Your task to perform on an android device: Open the phone app and click the voicemail tab. Image 0: 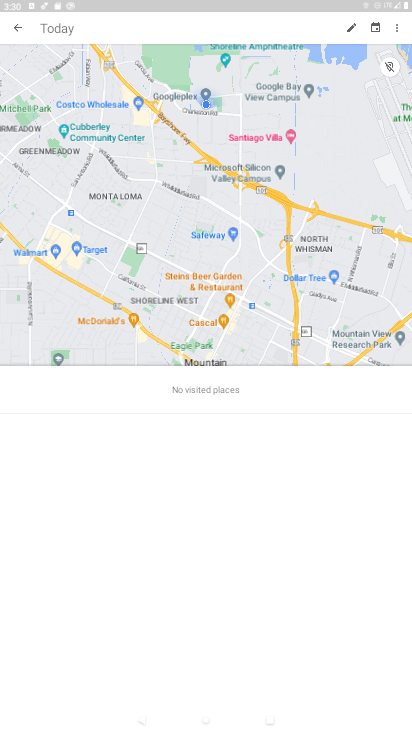
Step 0: press home button
Your task to perform on an android device: Open the phone app and click the voicemail tab. Image 1: 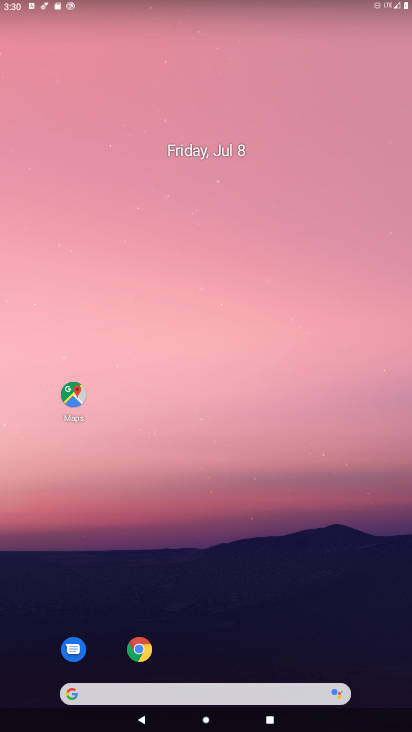
Step 1: drag from (365, 644) to (336, 167)
Your task to perform on an android device: Open the phone app and click the voicemail tab. Image 2: 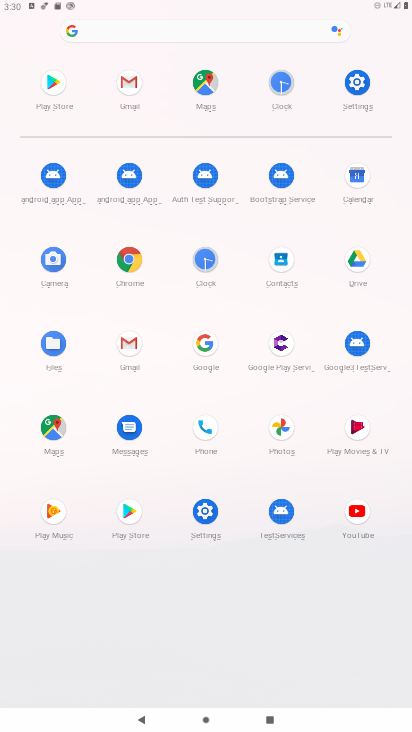
Step 2: click (201, 428)
Your task to perform on an android device: Open the phone app and click the voicemail tab. Image 3: 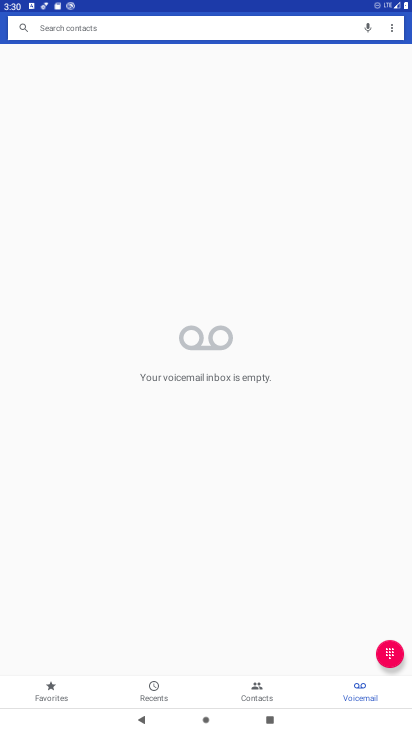
Step 3: click (350, 686)
Your task to perform on an android device: Open the phone app and click the voicemail tab. Image 4: 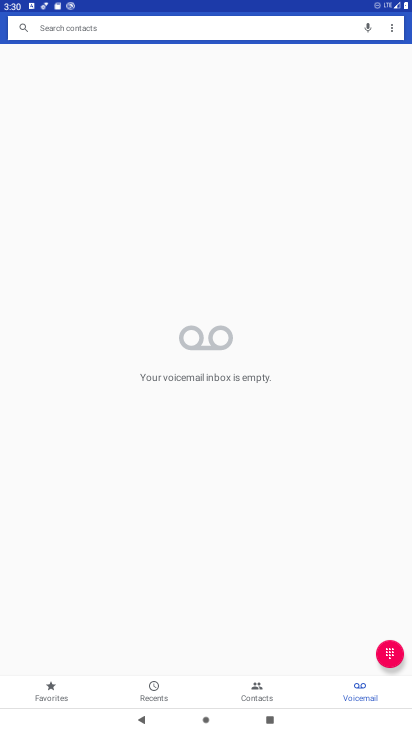
Step 4: task complete